Your task to perform on an android device: Open internet settings Image 0: 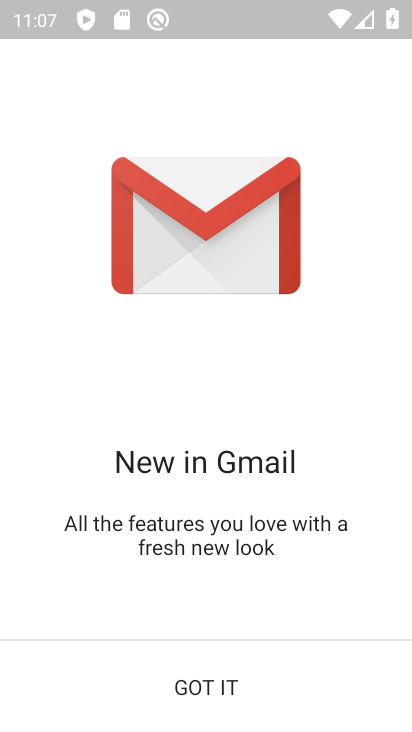
Step 0: press home button
Your task to perform on an android device: Open internet settings Image 1: 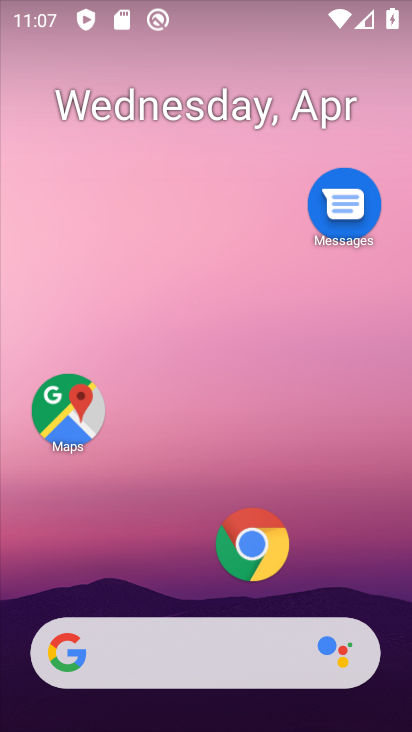
Step 1: drag from (229, 604) to (255, 28)
Your task to perform on an android device: Open internet settings Image 2: 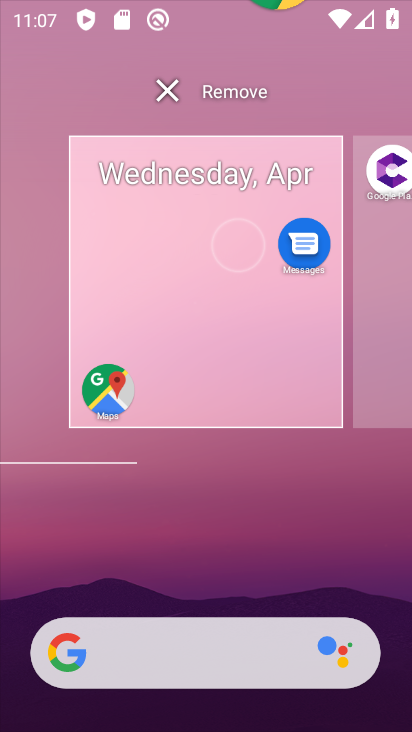
Step 2: drag from (216, 553) to (248, 52)
Your task to perform on an android device: Open internet settings Image 3: 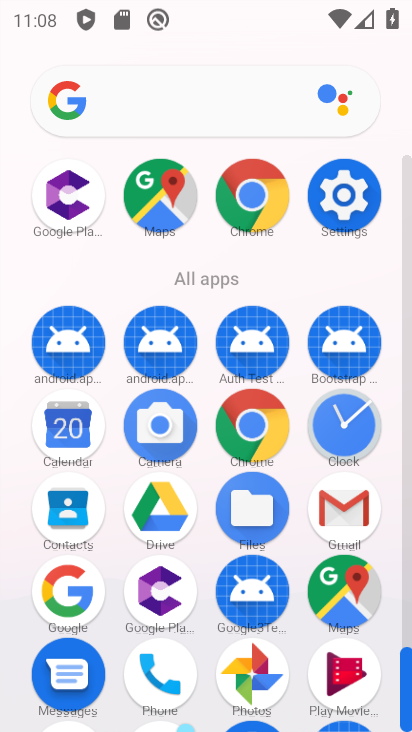
Step 3: click (350, 215)
Your task to perform on an android device: Open internet settings Image 4: 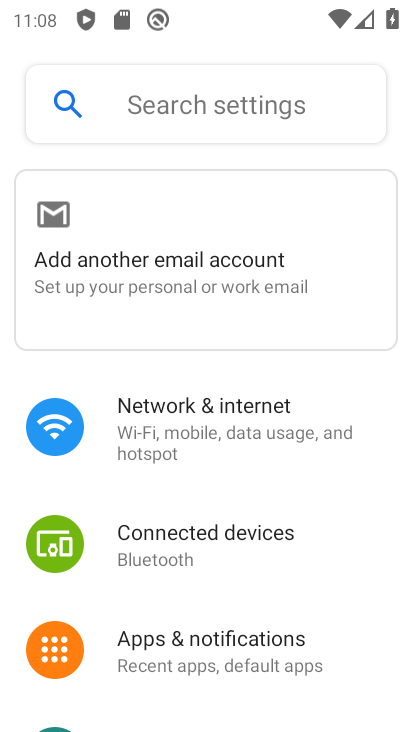
Step 4: click (176, 420)
Your task to perform on an android device: Open internet settings Image 5: 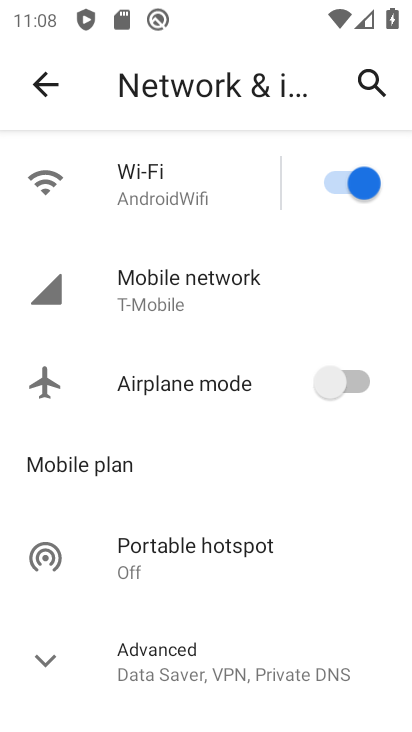
Step 5: click (194, 264)
Your task to perform on an android device: Open internet settings Image 6: 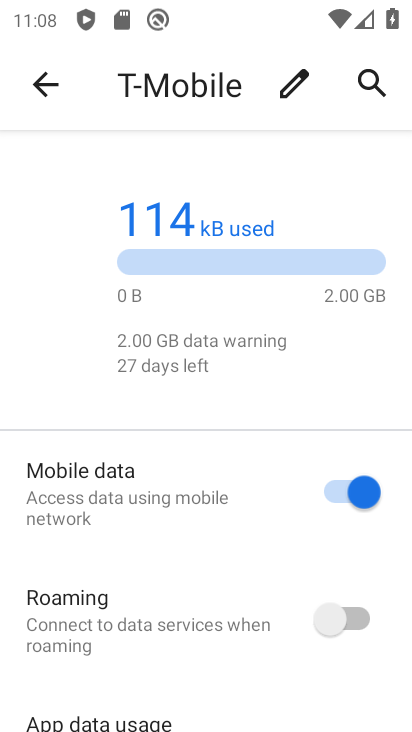
Step 6: task complete